Your task to perform on an android device: turn smart compose on in the gmail app Image 0: 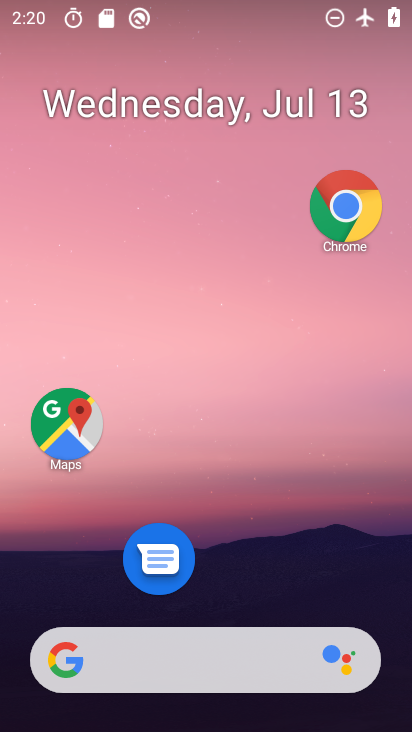
Step 0: drag from (298, 616) to (307, 106)
Your task to perform on an android device: turn smart compose on in the gmail app Image 1: 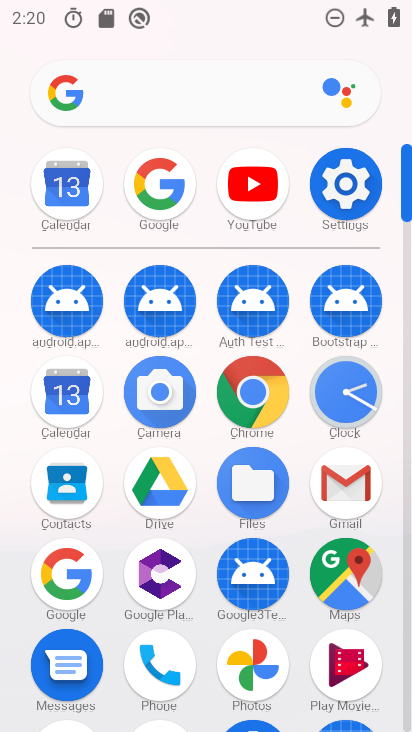
Step 1: click (345, 499)
Your task to perform on an android device: turn smart compose on in the gmail app Image 2: 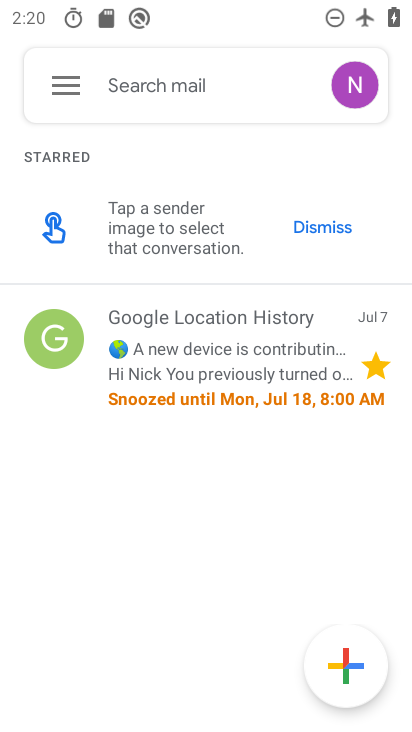
Step 2: click (63, 100)
Your task to perform on an android device: turn smart compose on in the gmail app Image 3: 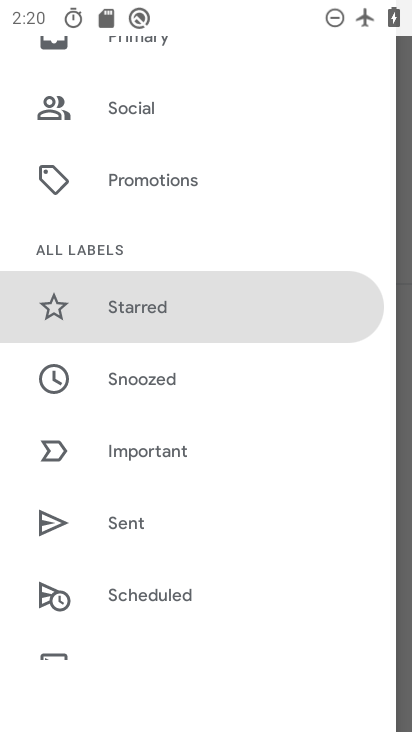
Step 3: drag from (143, 540) to (185, 134)
Your task to perform on an android device: turn smart compose on in the gmail app Image 4: 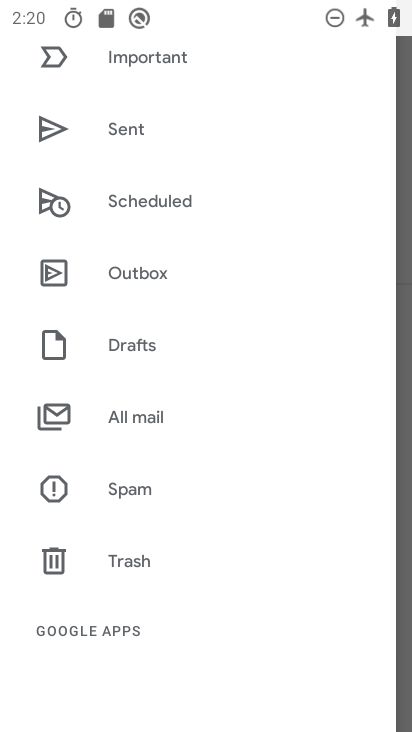
Step 4: drag from (150, 573) to (145, 237)
Your task to perform on an android device: turn smart compose on in the gmail app Image 5: 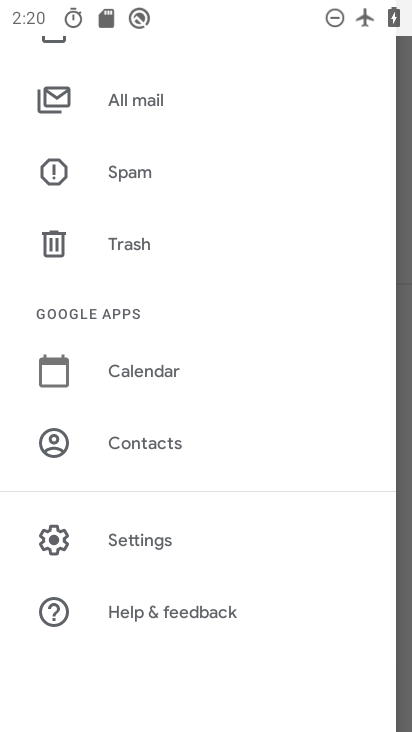
Step 5: click (153, 546)
Your task to perform on an android device: turn smart compose on in the gmail app Image 6: 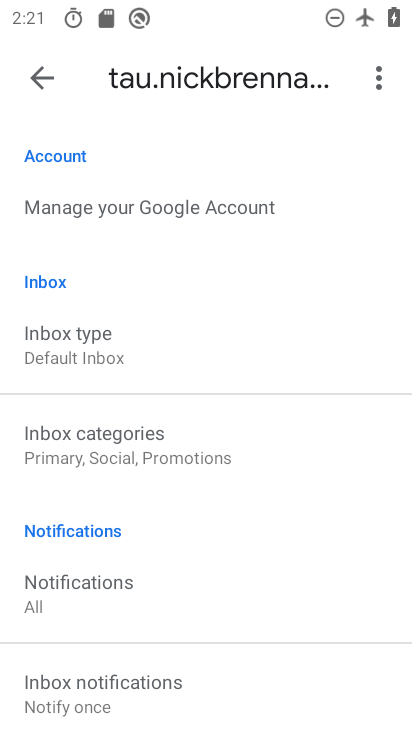
Step 6: task complete